Your task to perform on an android device: Do I have any events tomorrow? Image 0: 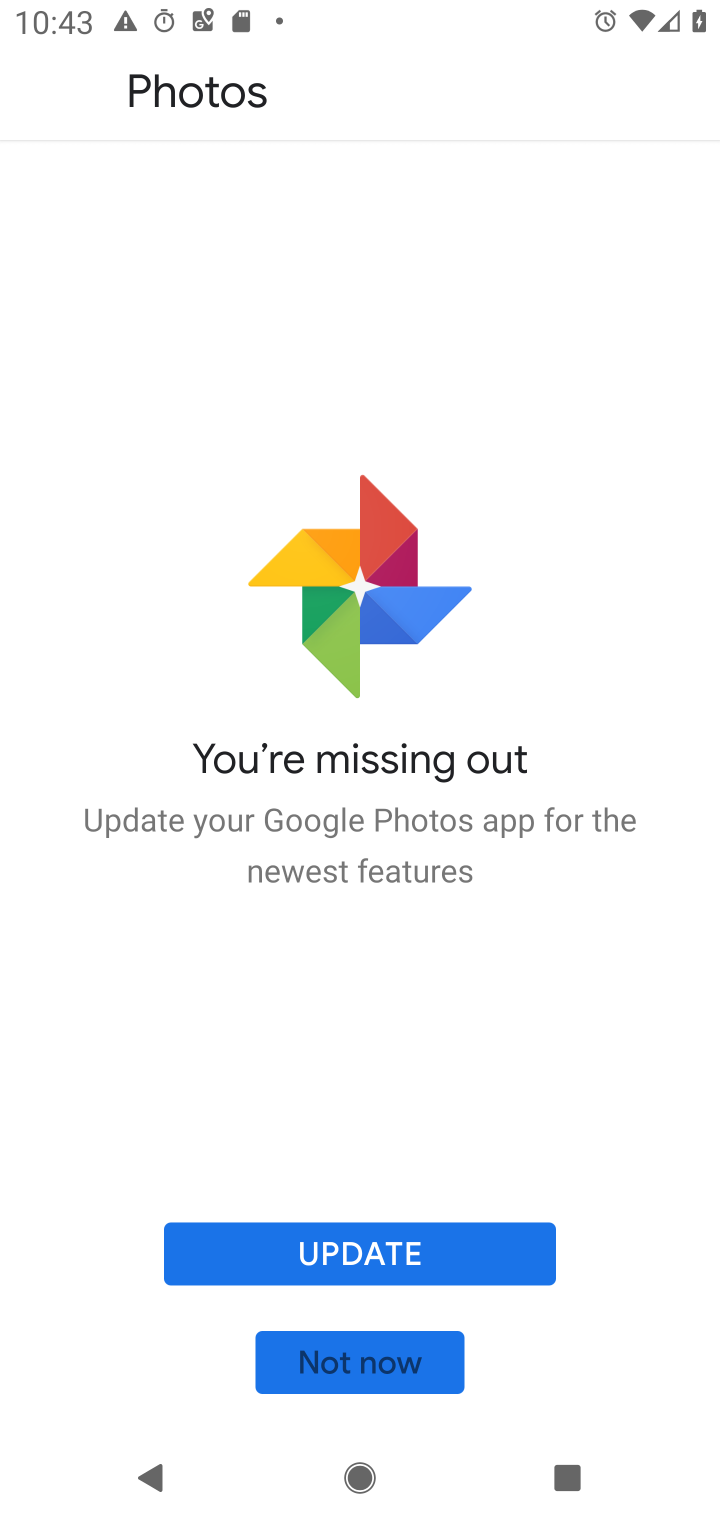
Step 0: press home button
Your task to perform on an android device: Do I have any events tomorrow? Image 1: 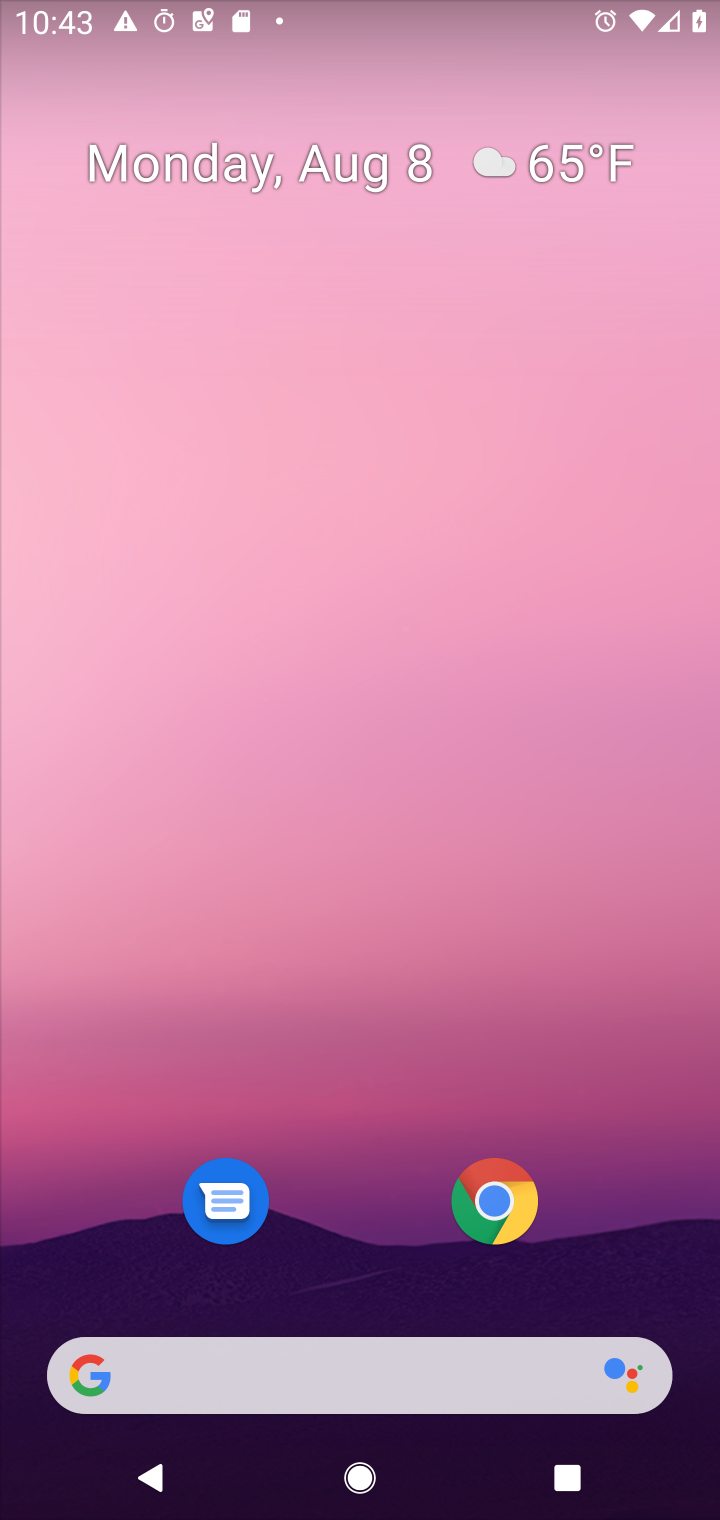
Step 1: press home button
Your task to perform on an android device: Do I have any events tomorrow? Image 2: 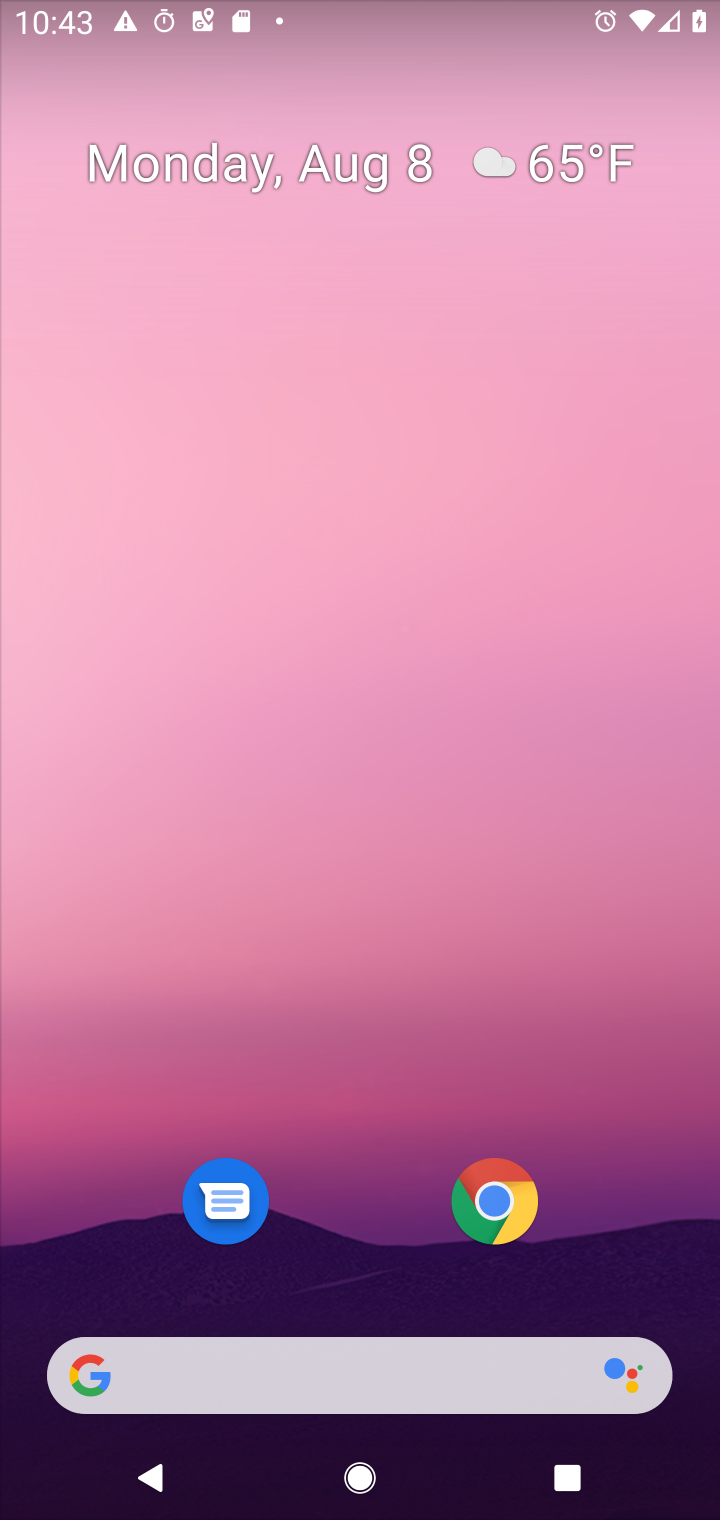
Step 2: drag from (586, 1253) to (634, 198)
Your task to perform on an android device: Do I have any events tomorrow? Image 3: 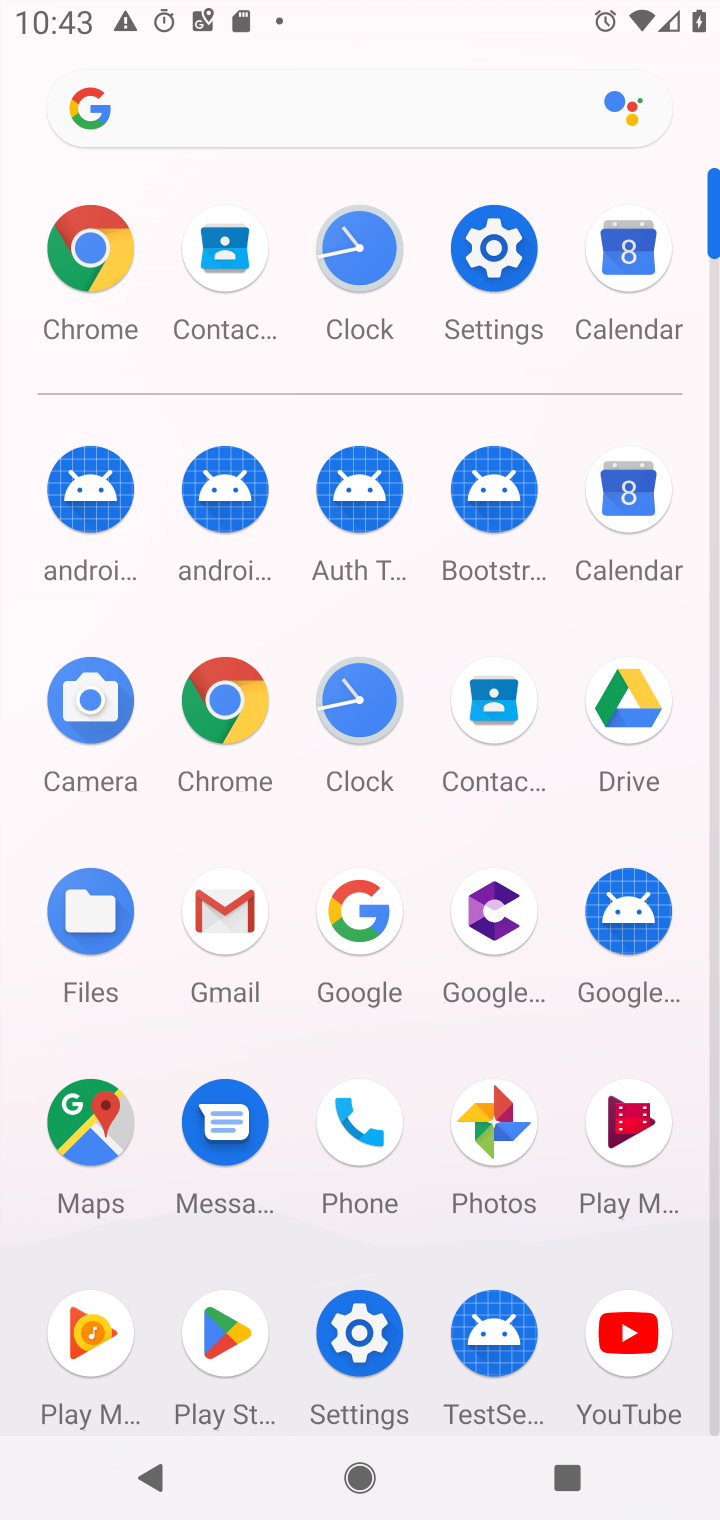
Step 3: click (637, 493)
Your task to perform on an android device: Do I have any events tomorrow? Image 4: 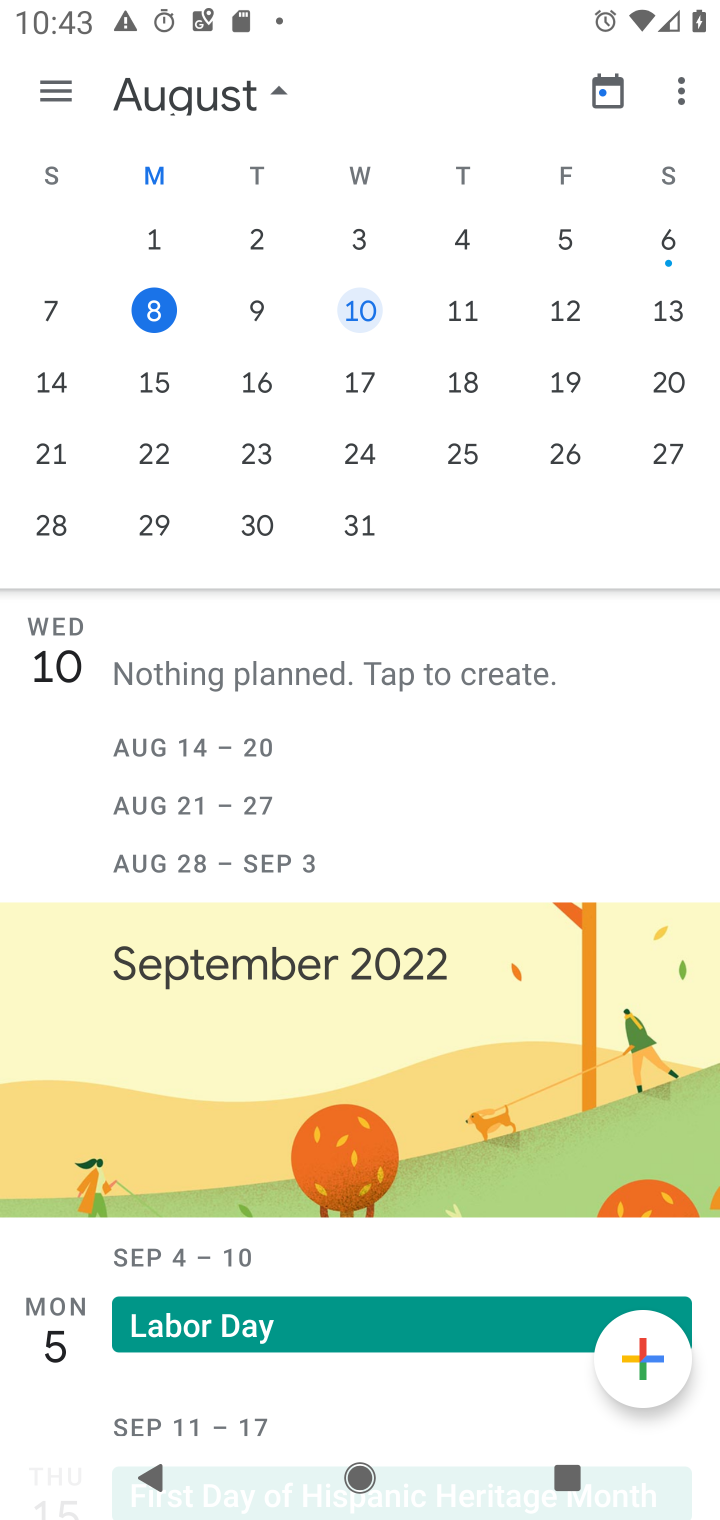
Step 4: click (362, 313)
Your task to perform on an android device: Do I have any events tomorrow? Image 5: 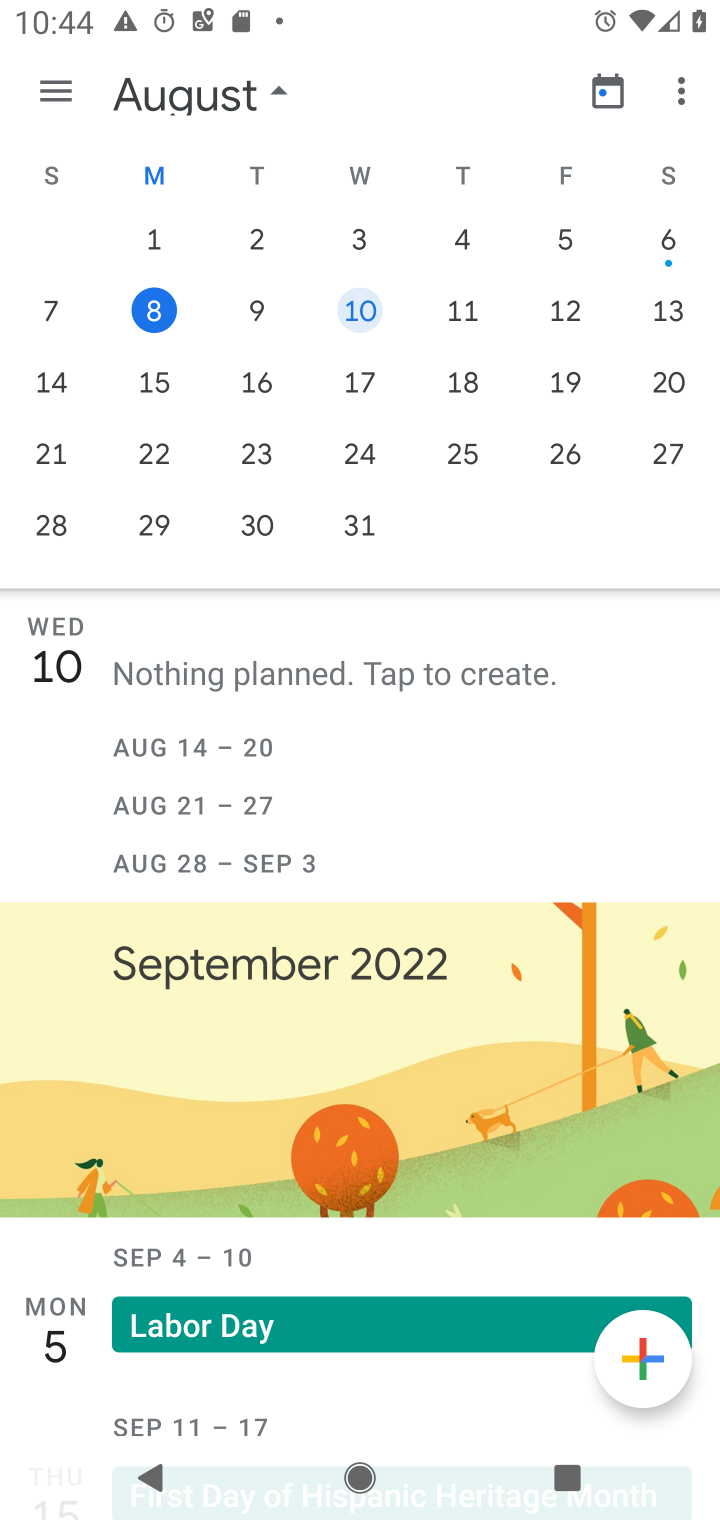
Step 5: task complete